Your task to perform on an android device: toggle javascript in the chrome app Image 0: 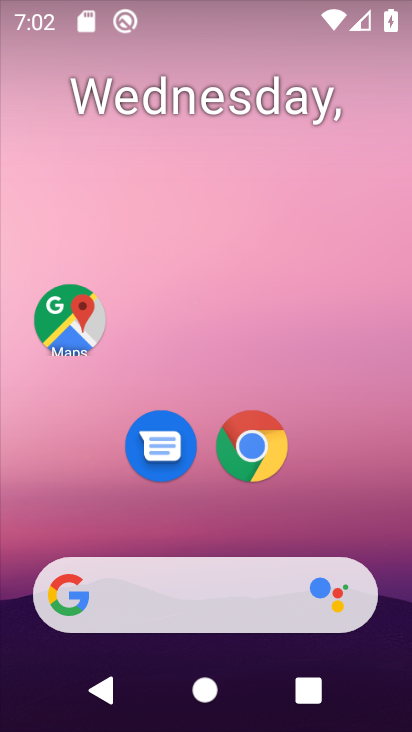
Step 0: drag from (275, 643) to (237, 84)
Your task to perform on an android device: toggle javascript in the chrome app Image 1: 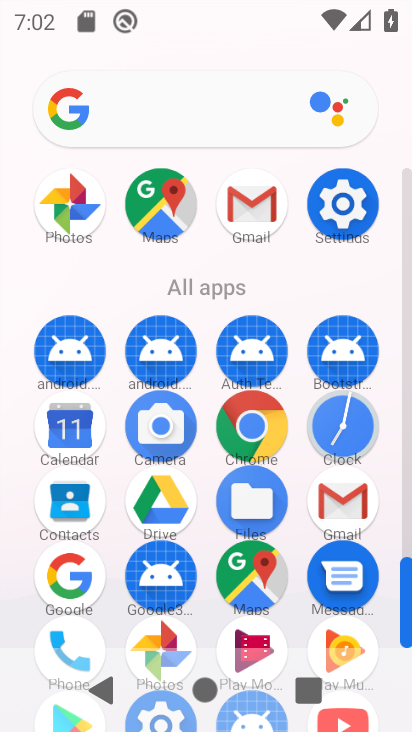
Step 1: click (248, 432)
Your task to perform on an android device: toggle javascript in the chrome app Image 2: 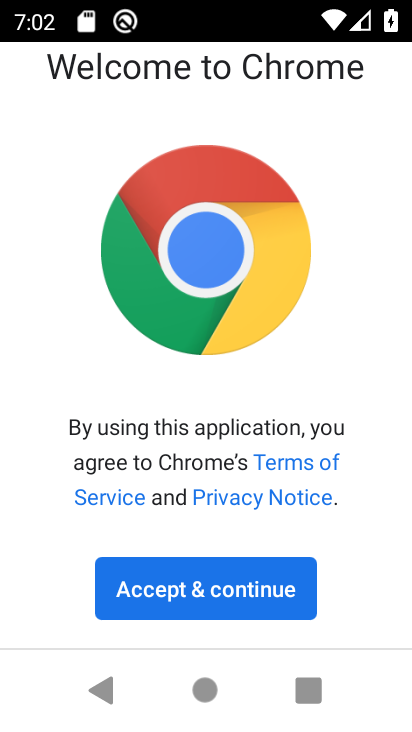
Step 2: click (246, 591)
Your task to perform on an android device: toggle javascript in the chrome app Image 3: 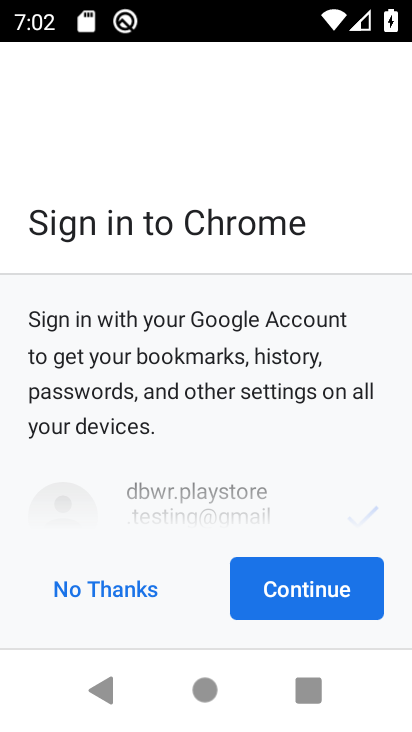
Step 3: click (323, 600)
Your task to perform on an android device: toggle javascript in the chrome app Image 4: 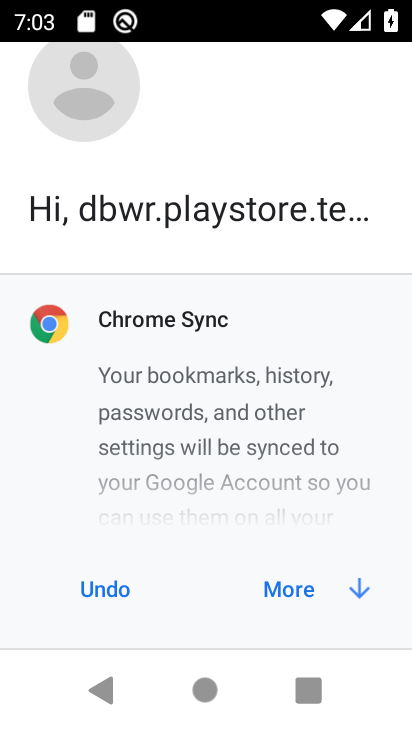
Step 4: click (352, 581)
Your task to perform on an android device: toggle javascript in the chrome app Image 5: 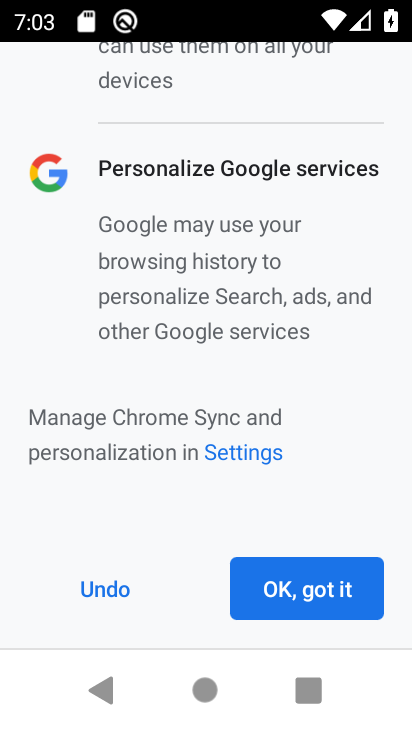
Step 5: click (316, 590)
Your task to perform on an android device: toggle javascript in the chrome app Image 6: 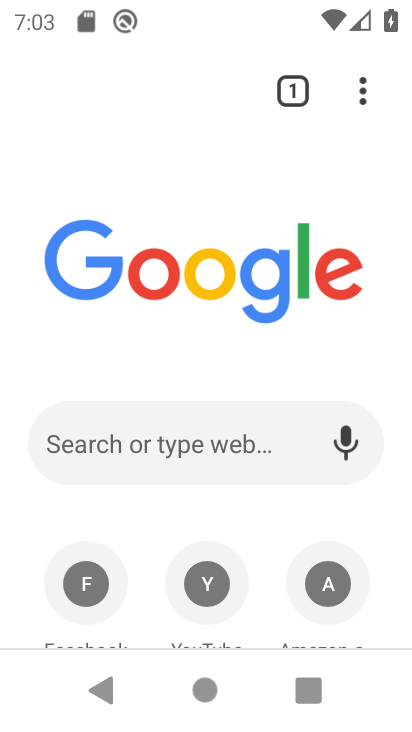
Step 6: click (362, 102)
Your task to perform on an android device: toggle javascript in the chrome app Image 7: 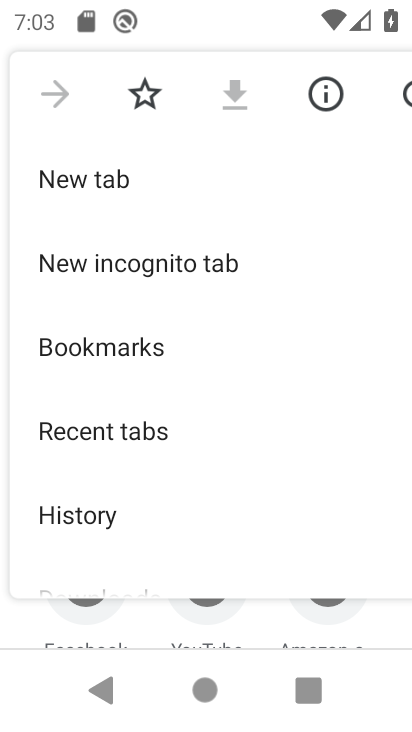
Step 7: drag from (146, 467) to (217, 293)
Your task to perform on an android device: toggle javascript in the chrome app Image 8: 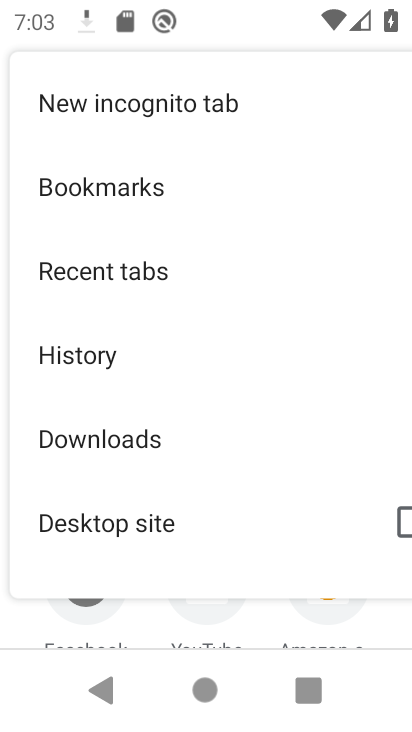
Step 8: drag from (195, 415) to (216, 300)
Your task to perform on an android device: toggle javascript in the chrome app Image 9: 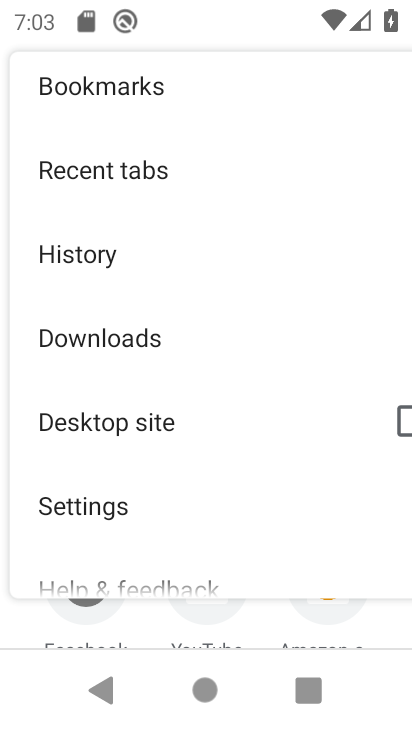
Step 9: click (105, 509)
Your task to perform on an android device: toggle javascript in the chrome app Image 10: 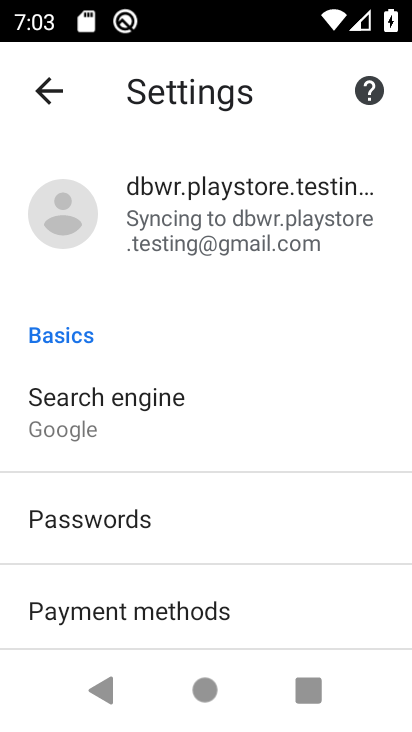
Step 10: drag from (210, 522) to (293, 249)
Your task to perform on an android device: toggle javascript in the chrome app Image 11: 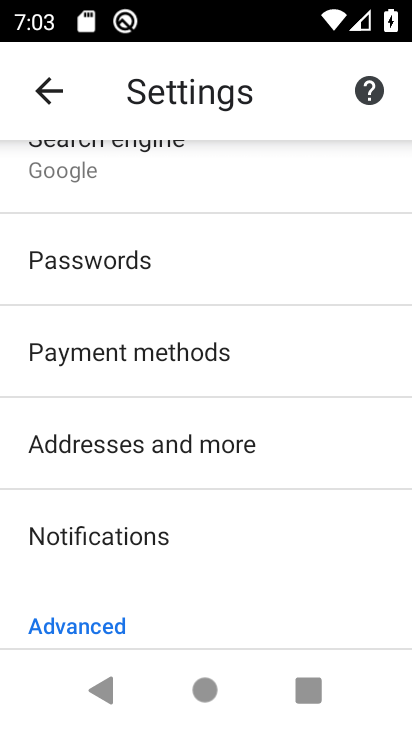
Step 11: drag from (184, 529) to (206, 281)
Your task to perform on an android device: toggle javascript in the chrome app Image 12: 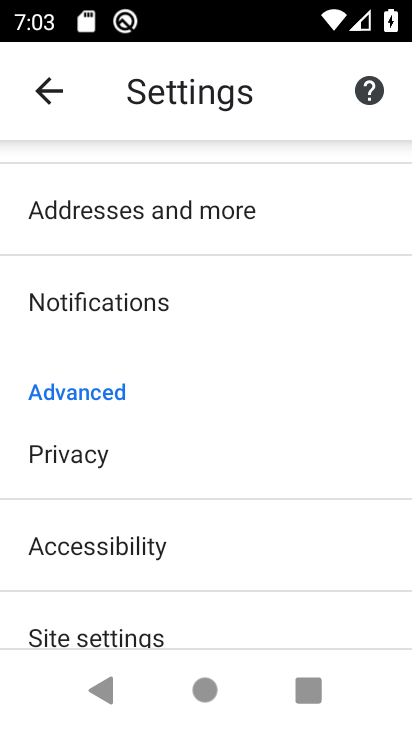
Step 12: click (113, 628)
Your task to perform on an android device: toggle javascript in the chrome app Image 13: 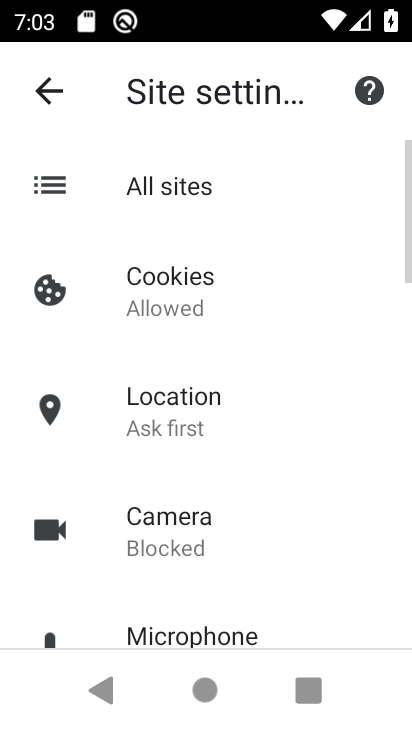
Step 13: drag from (207, 582) to (249, 211)
Your task to perform on an android device: toggle javascript in the chrome app Image 14: 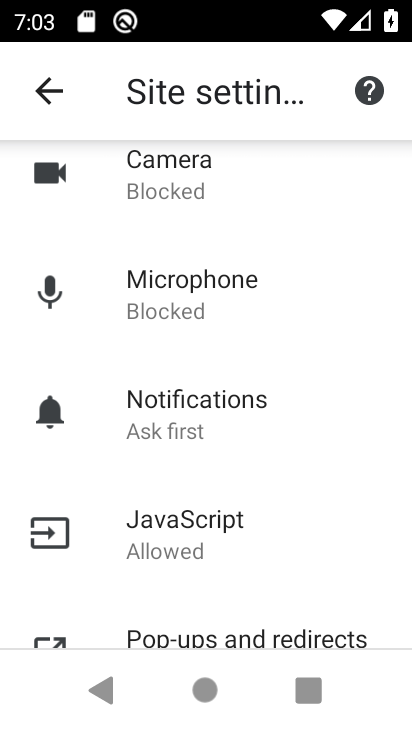
Step 14: click (199, 513)
Your task to perform on an android device: toggle javascript in the chrome app Image 15: 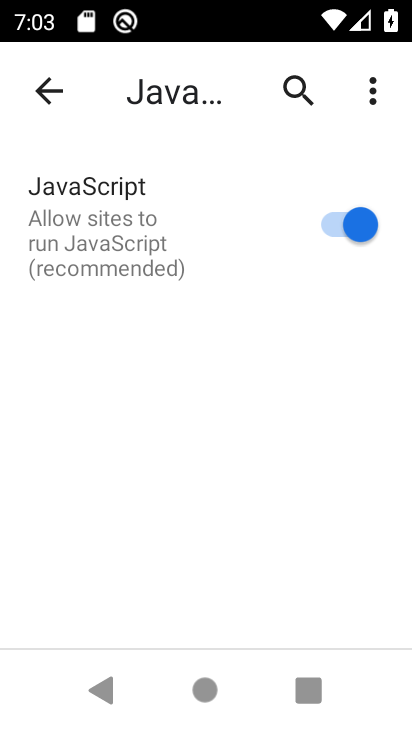
Step 15: task complete